Your task to perform on an android device: turn on airplane mode Image 0: 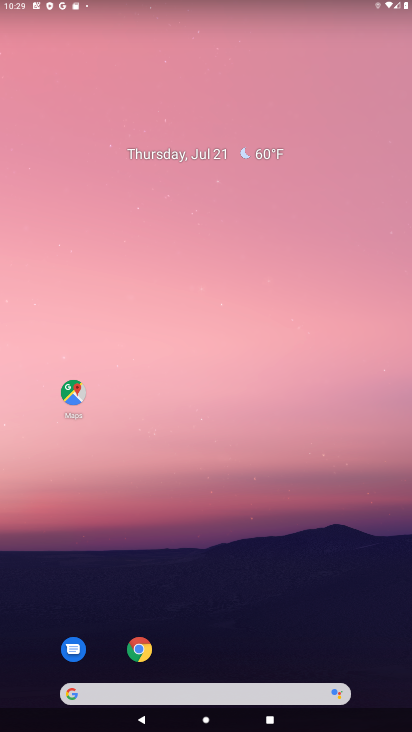
Step 0: drag from (182, 693) to (198, 131)
Your task to perform on an android device: turn on airplane mode Image 1: 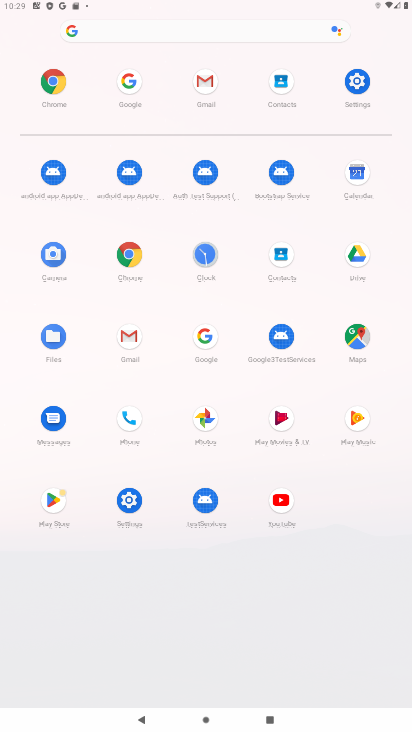
Step 1: click (356, 83)
Your task to perform on an android device: turn on airplane mode Image 2: 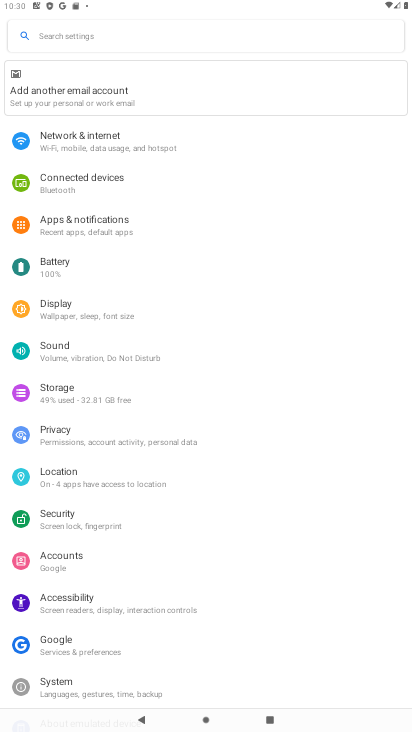
Step 2: click (96, 145)
Your task to perform on an android device: turn on airplane mode Image 3: 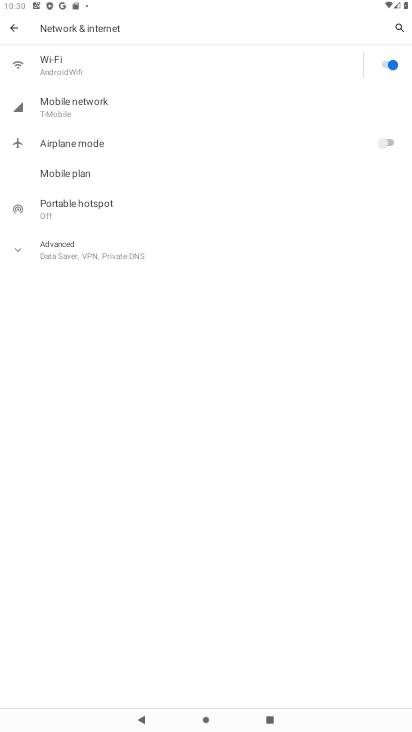
Step 3: click (385, 140)
Your task to perform on an android device: turn on airplane mode Image 4: 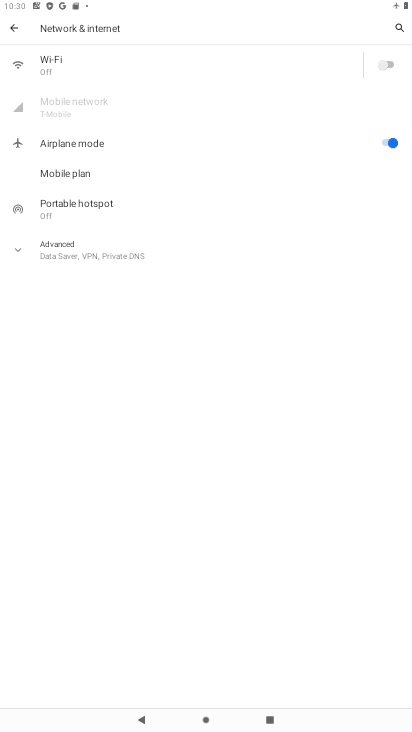
Step 4: task complete